Your task to perform on an android device: What's the weather today? Image 0: 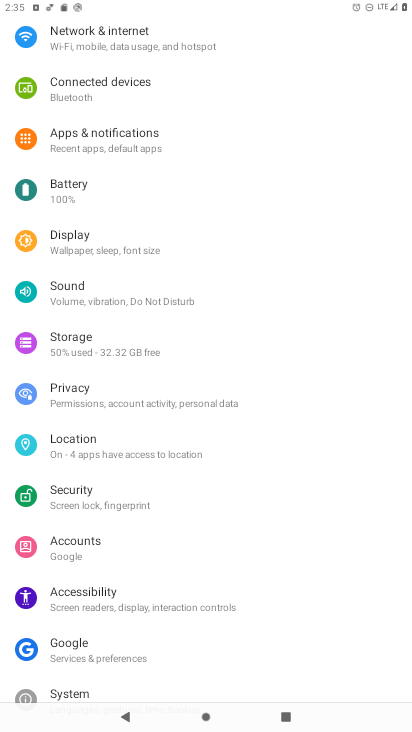
Step 0: press home button
Your task to perform on an android device: What's the weather today? Image 1: 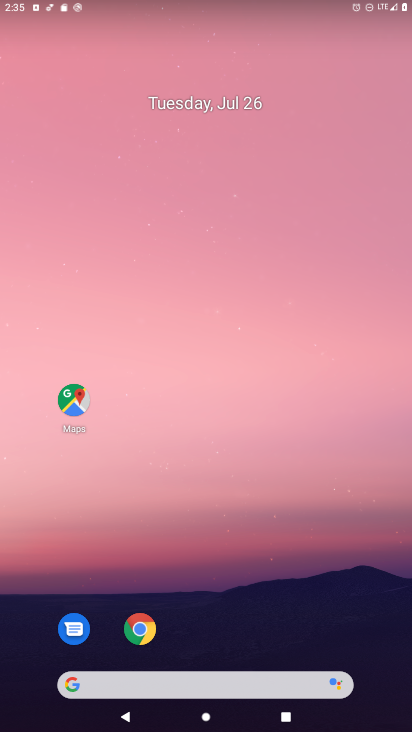
Step 1: drag from (7, 296) to (361, 294)
Your task to perform on an android device: What's the weather today? Image 2: 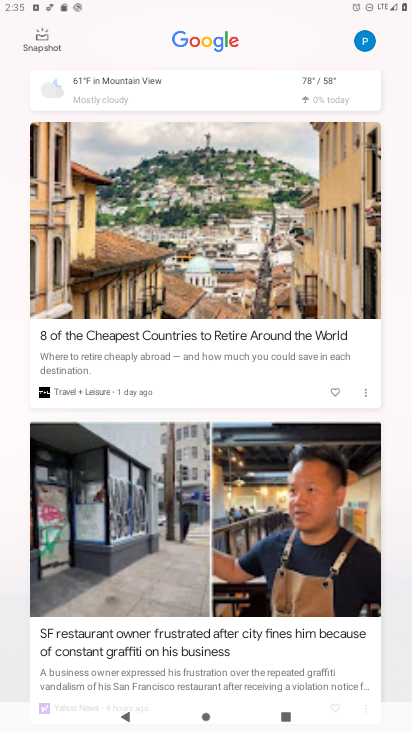
Step 2: click (309, 79)
Your task to perform on an android device: What's the weather today? Image 3: 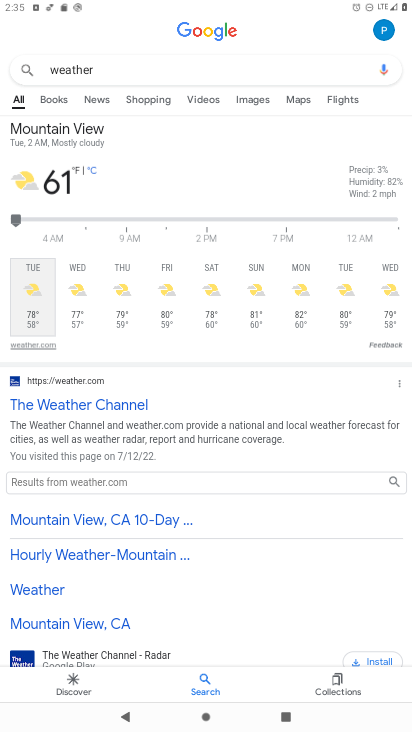
Step 3: task complete